Your task to perform on an android device: Open Chrome and go to settings Image 0: 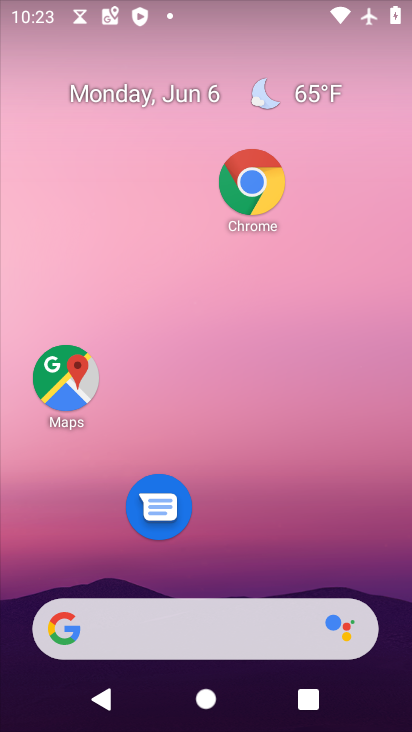
Step 0: click (268, 168)
Your task to perform on an android device: Open Chrome and go to settings Image 1: 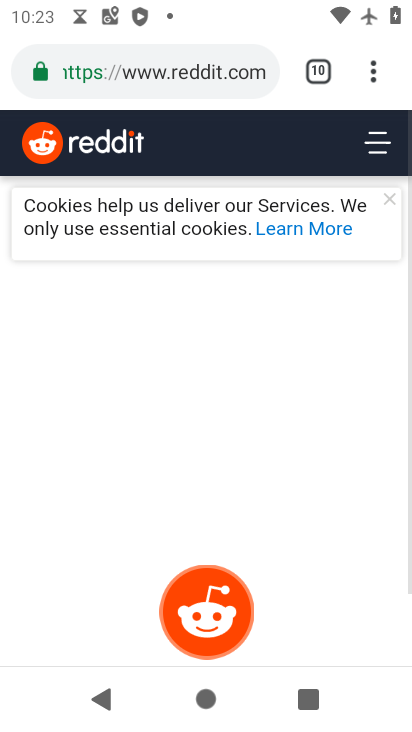
Step 1: click (368, 66)
Your task to perform on an android device: Open Chrome and go to settings Image 2: 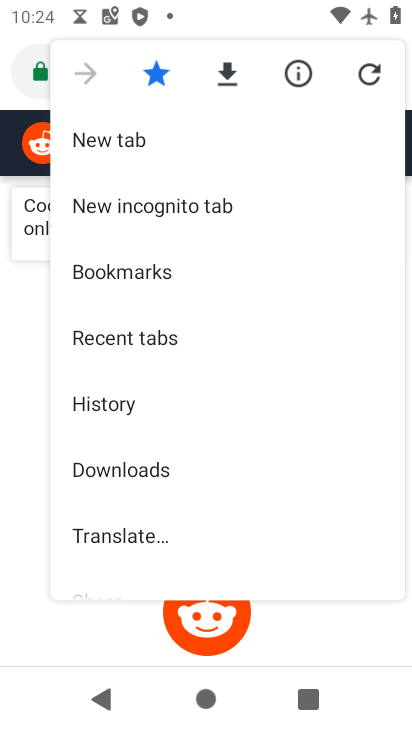
Step 2: drag from (184, 536) to (203, 288)
Your task to perform on an android device: Open Chrome and go to settings Image 3: 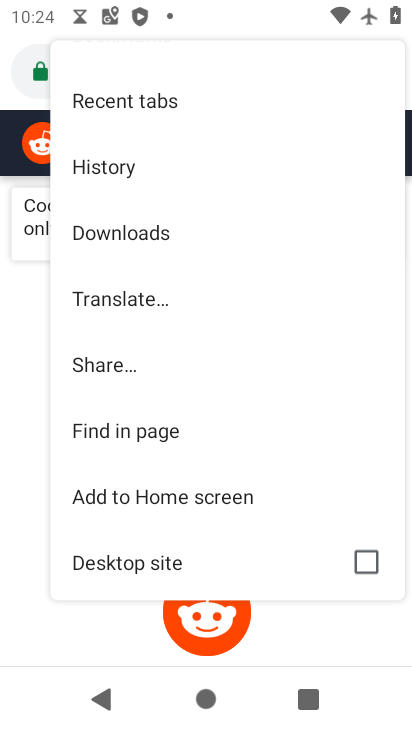
Step 3: drag from (164, 562) to (212, 233)
Your task to perform on an android device: Open Chrome and go to settings Image 4: 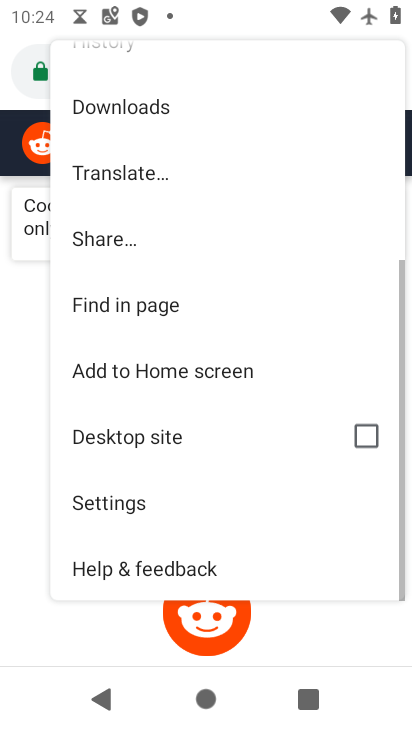
Step 4: click (142, 511)
Your task to perform on an android device: Open Chrome and go to settings Image 5: 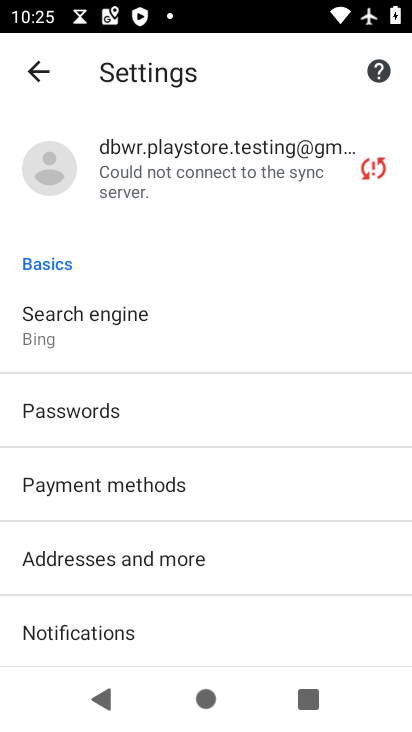
Step 5: task complete